Your task to perform on an android device: Show the shopping cart on walmart. Add apple airpods pro to the cart on walmart, then select checkout. Image 0: 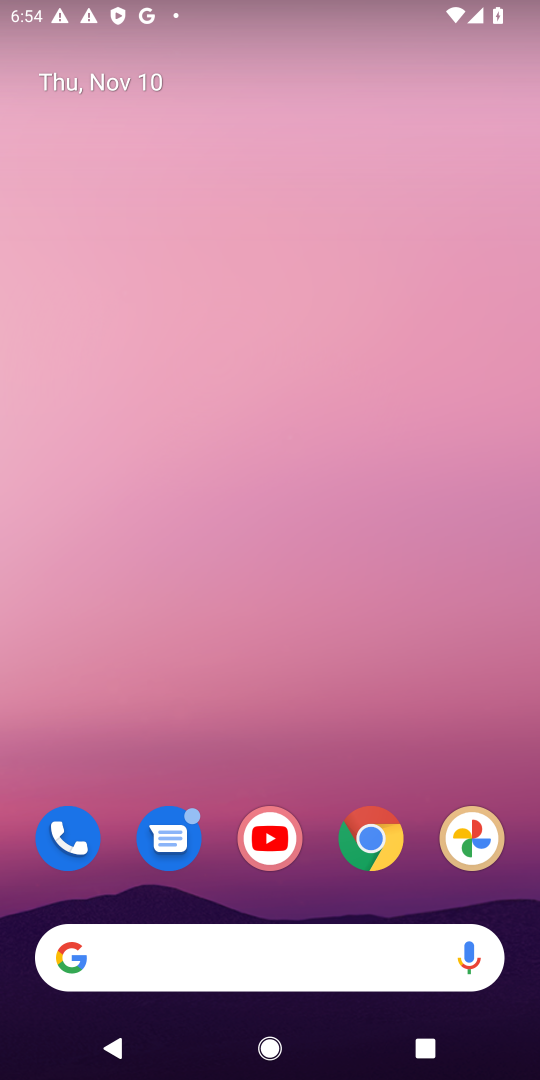
Step 0: drag from (319, 908) to (303, 7)
Your task to perform on an android device: Show the shopping cart on walmart. Add apple airpods pro to the cart on walmart, then select checkout. Image 1: 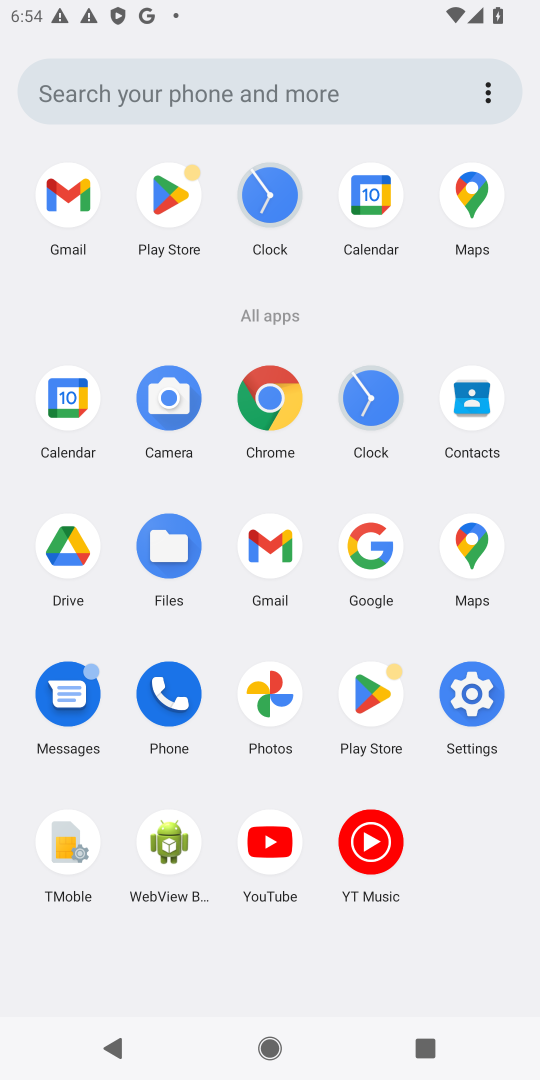
Step 1: click (281, 409)
Your task to perform on an android device: Show the shopping cart on walmart. Add apple airpods pro to the cart on walmart, then select checkout. Image 2: 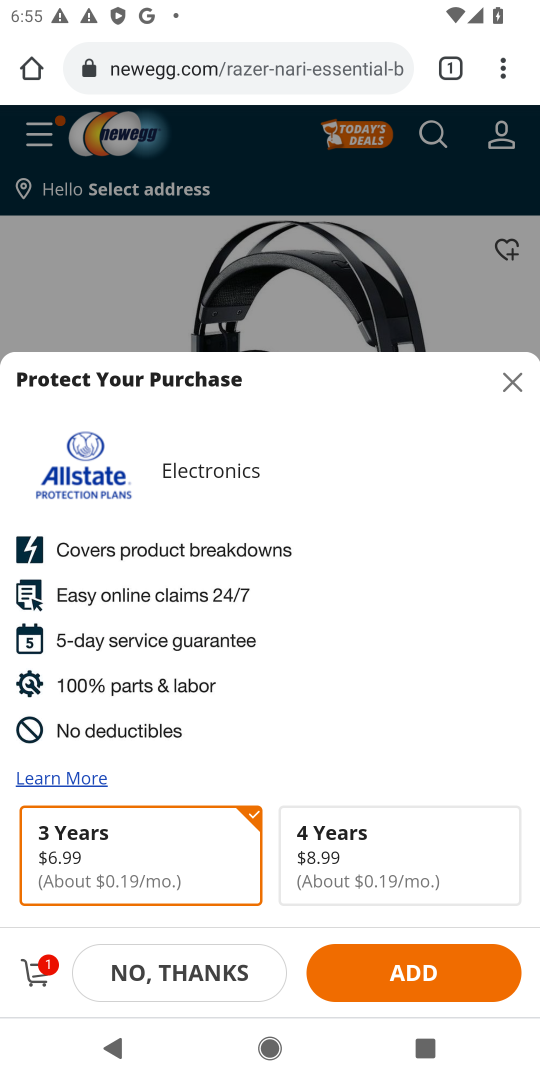
Step 2: click (286, 81)
Your task to perform on an android device: Show the shopping cart on walmart. Add apple airpods pro to the cart on walmart, then select checkout. Image 3: 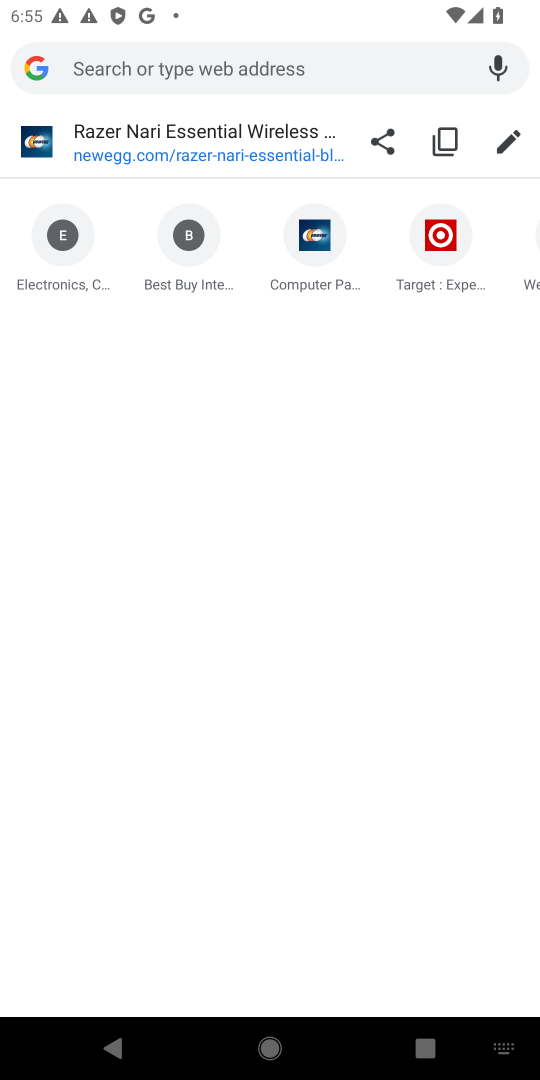
Step 3: type "walmart.com"
Your task to perform on an android device: Show the shopping cart on walmart. Add apple airpods pro to the cart on walmart, then select checkout. Image 4: 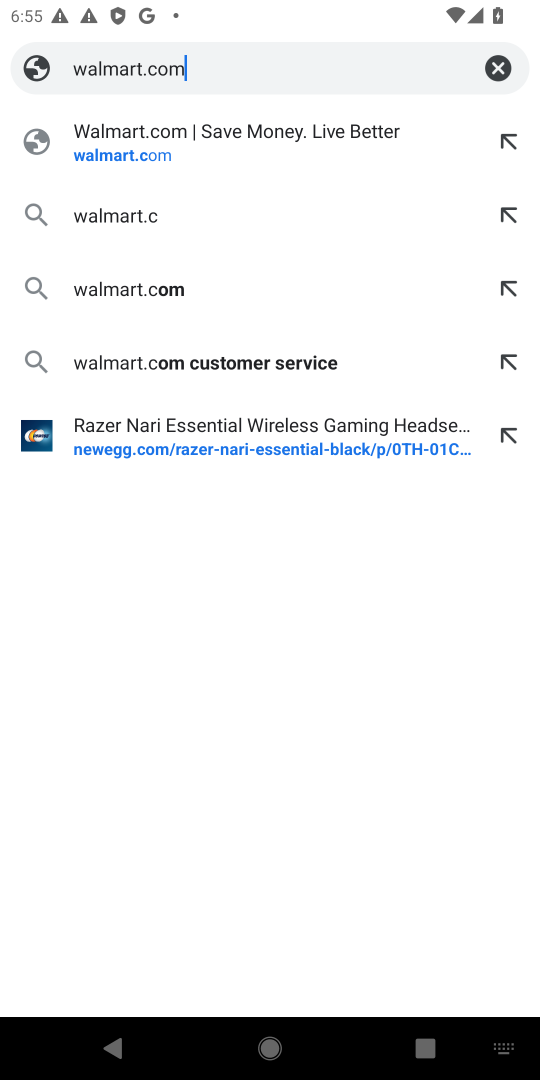
Step 4: press enter
Your task to perform on an android device: Show the shopping cart on walmart. Add apple airpods pro to the cart on walmart, then select checkout. Image 5: 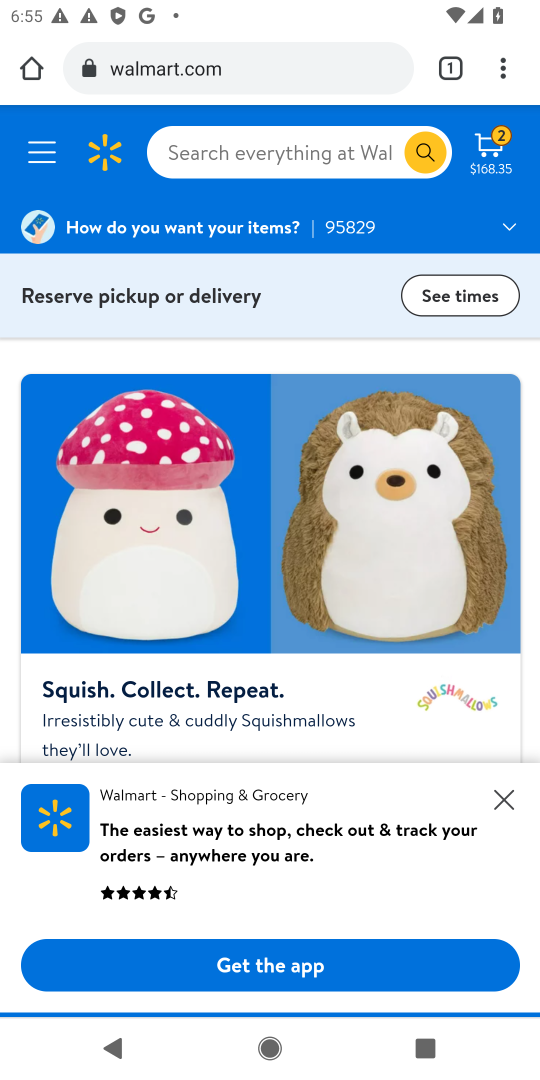
Step 5: click (490, 142)
Your task to perform on an android device: Show the shopping cart on walmart. Add apple airpods pro to the cart on walmart, then select checkout. Image 6: 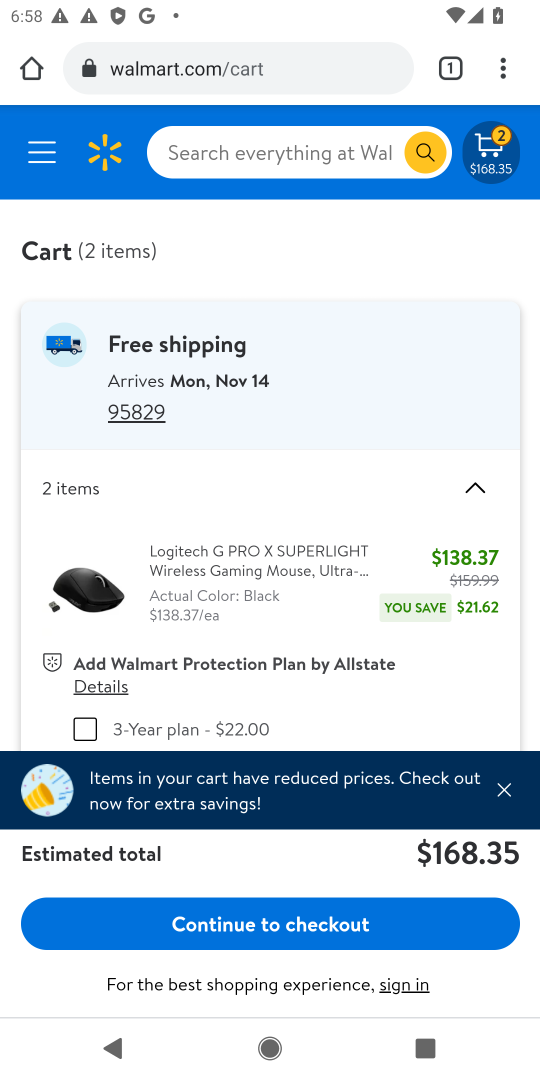
Step 6: click (271, 935)
Your task to perform on an android device: Show the shopping cart on walmart. Add apple airpods pro to the cart on walmart, then select checkout. Image 7: 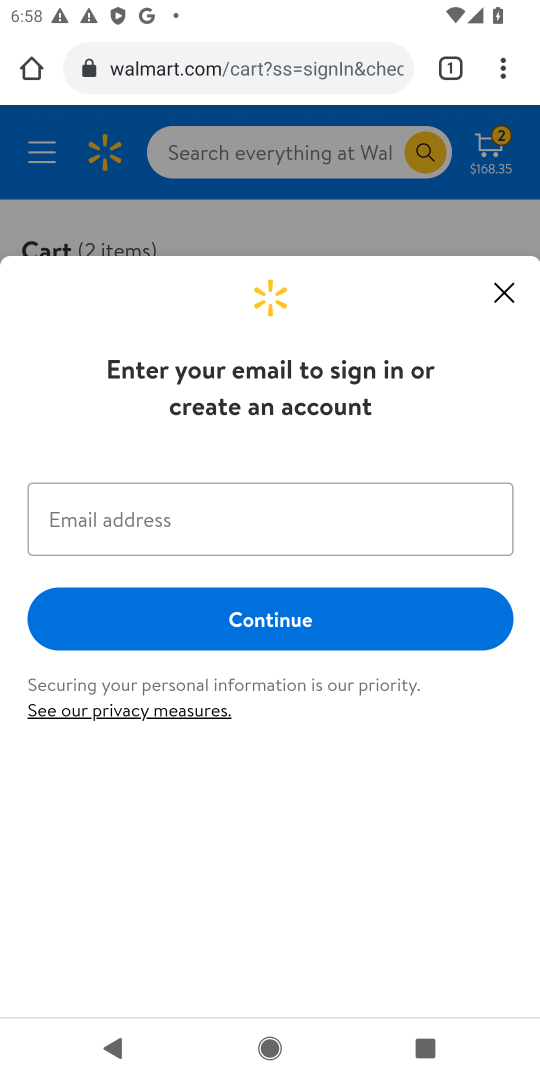
Step 7: click (505, 294)
Your task to perform on an android device: Show the shopping cart on walmart. Add apple airpods pro to the cart on walmart, then select checkout. Image 8: 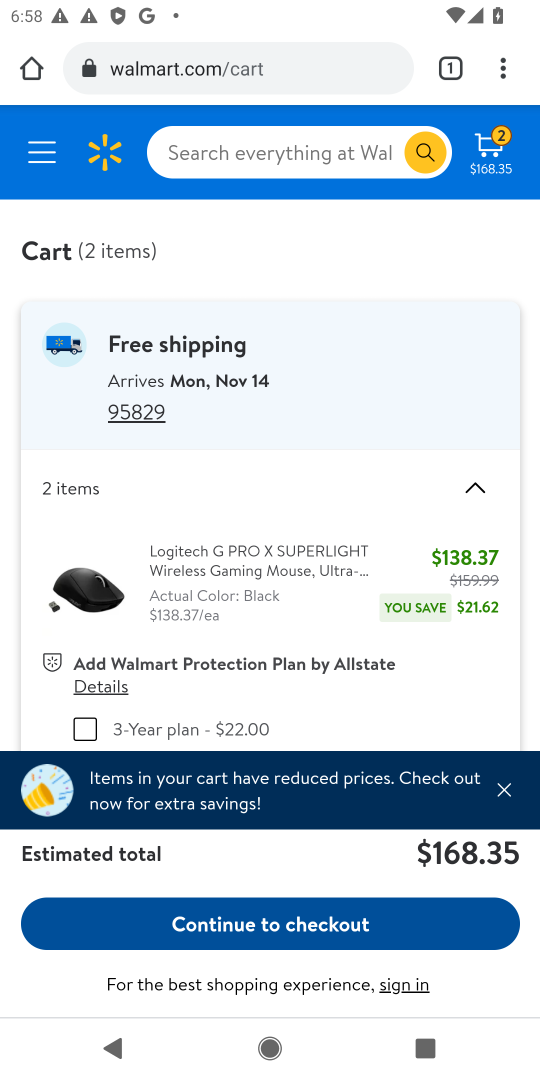
Step 8: drag from (282, 704) to (274, 580)
Your task to perform on an android device: Show the shopping cart on walmart. Add apple airpods pro to the cart on walmart, then select checkout. Image 9: 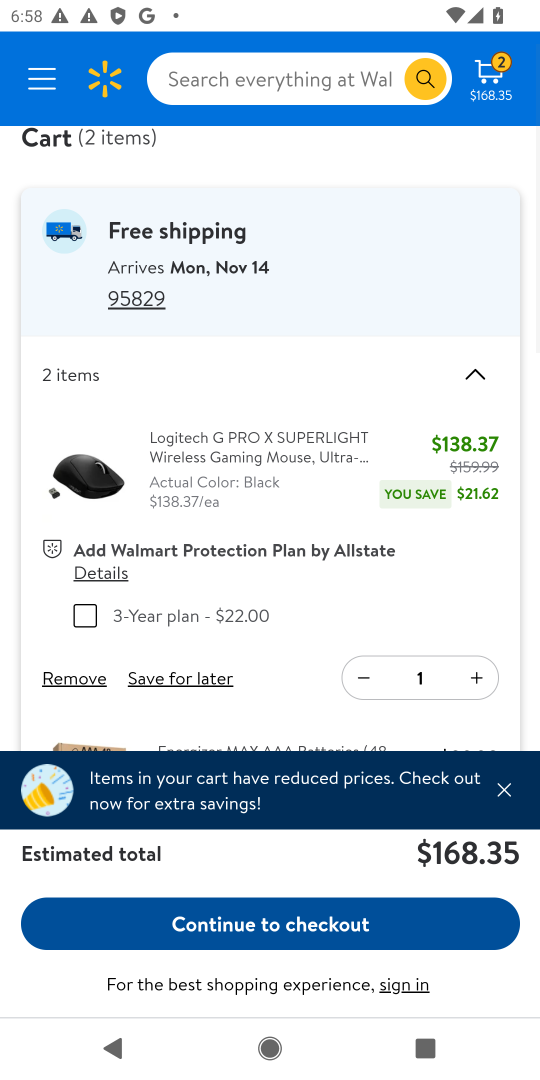
Step 9: click (301, 83)
Your task to perform on an android device: Show the shopping cart on walmart. Add apple airpods pro to the cart on walmart, then select checkout. Image 10: 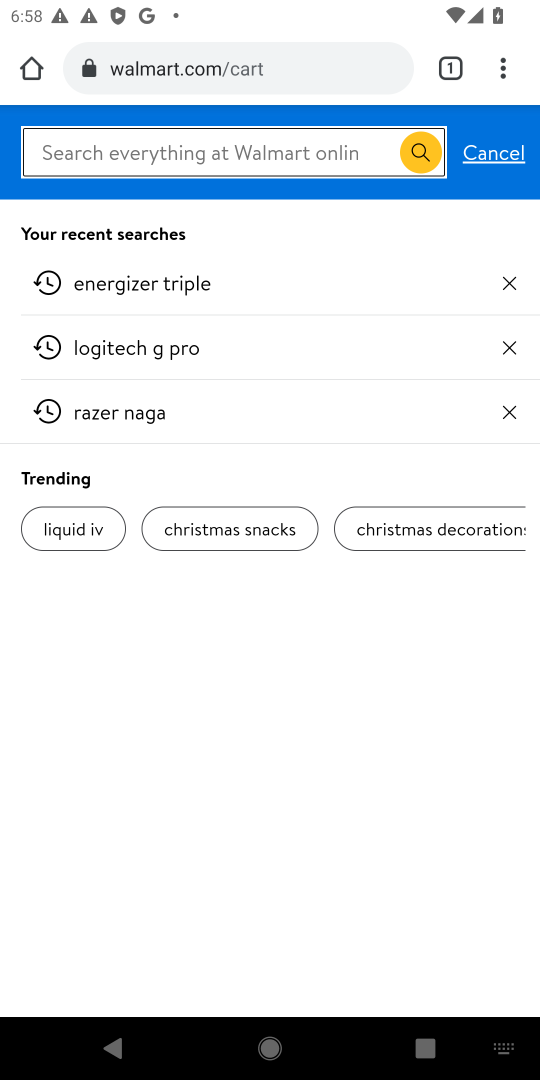
Step 10: type "apple airpods pro"
Your task to perform on an android device: Show the shopping cart on walmart. Add apple airpods pro to the cart on walmart, then select checkout. Image 11: 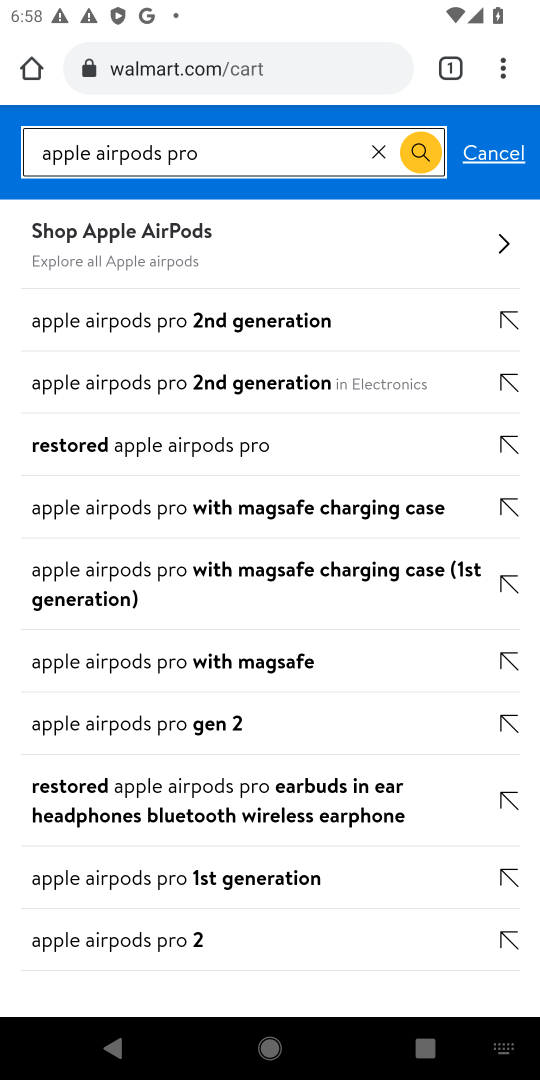
Step 11: press enter
Your task to perform on an android device: Show the shopping cart on walmart. Add apple airpods pro to the cart on walmart, then select checkout. Image 12: 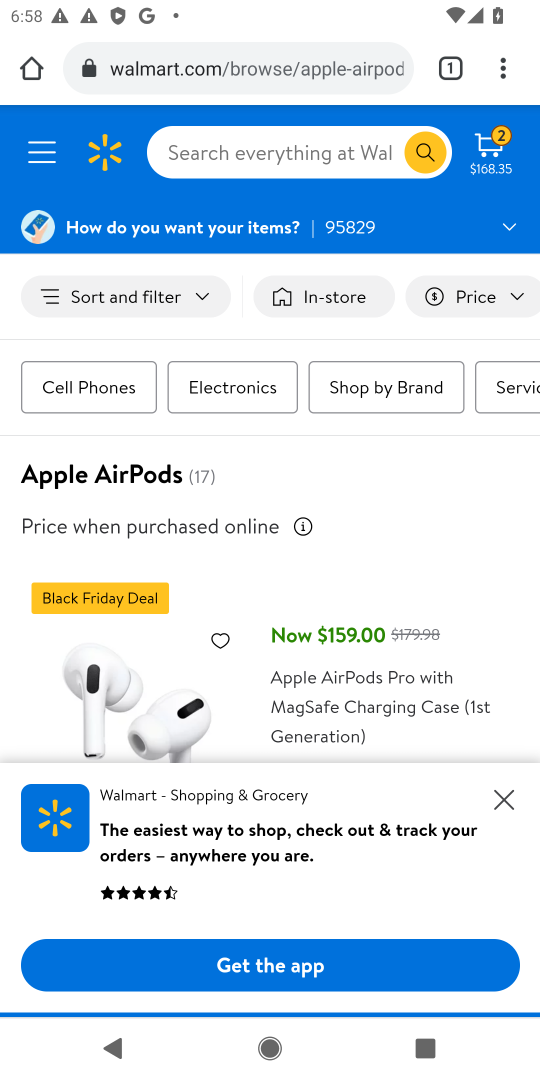
Step 12: drag from (348, 892) to (382, 256)
Your task to perform on an android device: Show the shopping cart on walmart. Add apple airpods pro to the cart on walmart, then select checkout. Image 13: 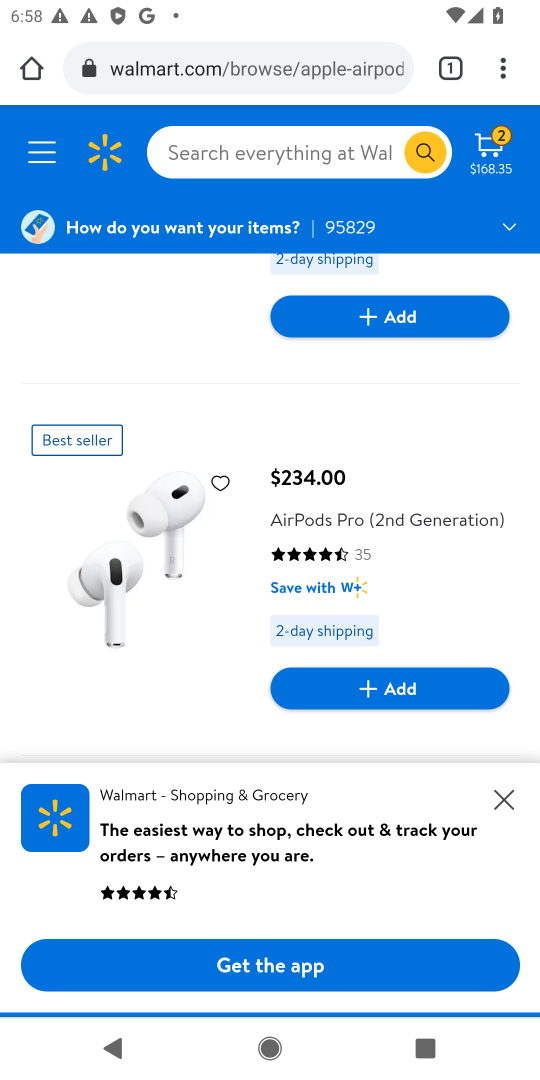
Step 13: click (512, 794)
Your task to perform on an android device: Show the shopping cart on walmart. Add apple airpods pro to the cart on walmart, then select checkout. Image 14: 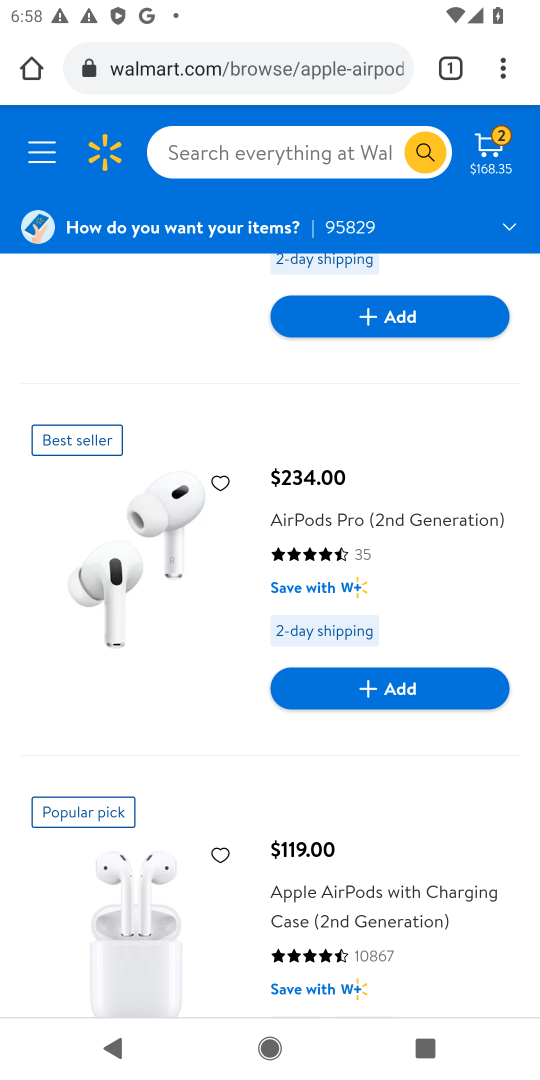
Step 14: drag from (317, 371) to (219, 917)
Your task to perform on an android device: Show the shopping cart on walmart. Add apple airpods pro to the cart on walmart, then select checkout. Image 15: 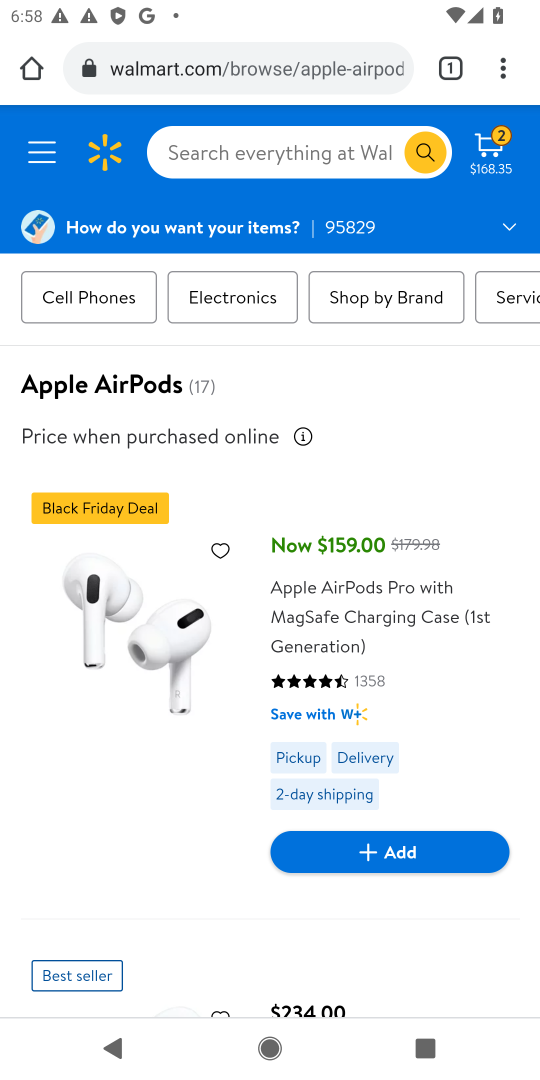
Step 15: click (444, 861)
Your task to perform on an android device: Show the shopping cart on walmart. Add apple airpods pro to the cart on walmart, then select checkout. Image 16: 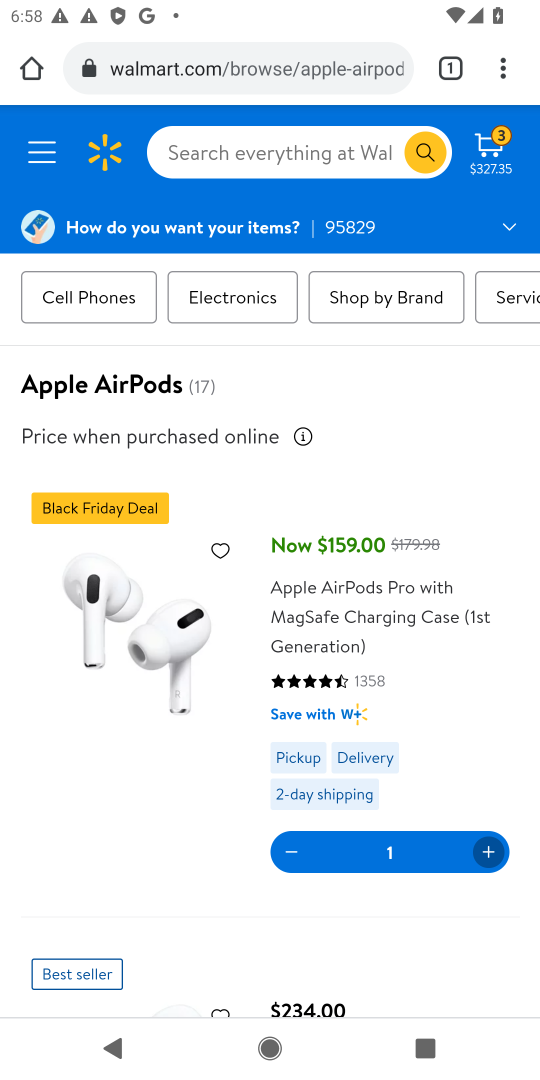
Step 16: click (485, 149)
Your task to perform on an android device: Show the shopping cart on walmart. Add apple airpods pro to the cart on walmart, then select checkout. Image 17: 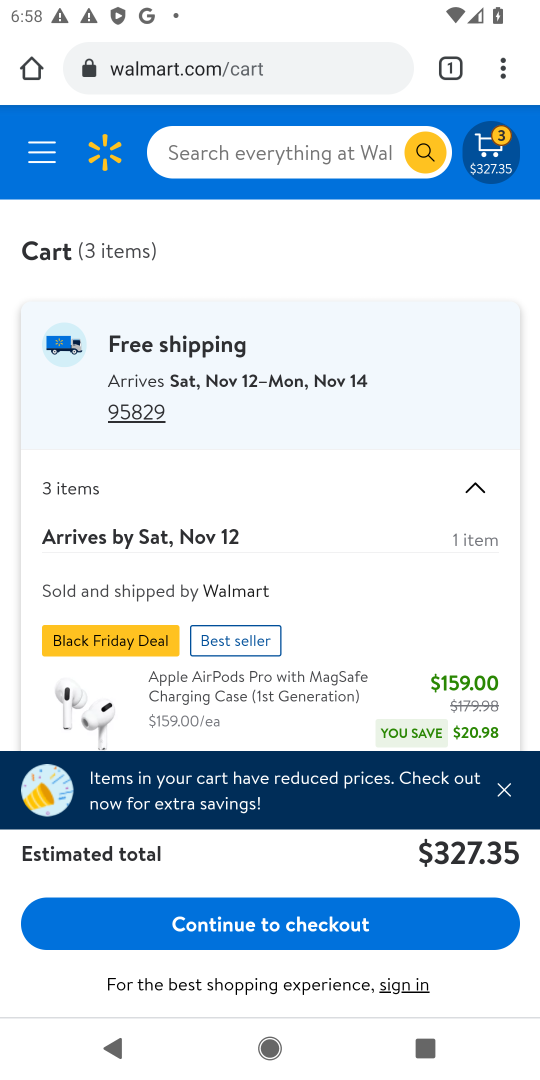
Step 17: click (265, 926)
Your task to perform on an android device: Show the shopping cart on walmart. Add apple airpods pro to the cart on walmart, then select checkout. Image 18: 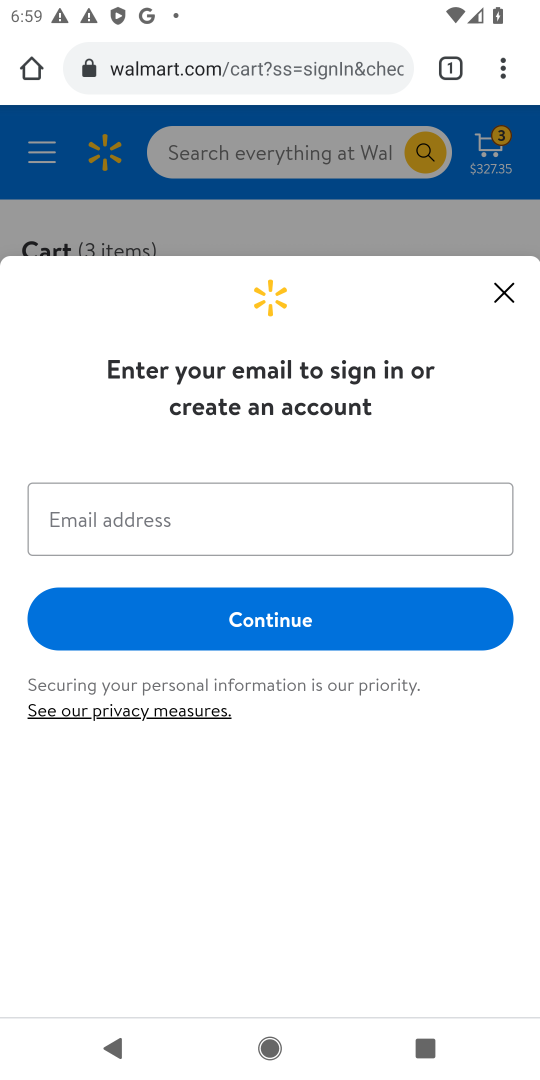
Step 18: task complete